Your task to perform on an android device: change the clock display to show seconds Image 0: 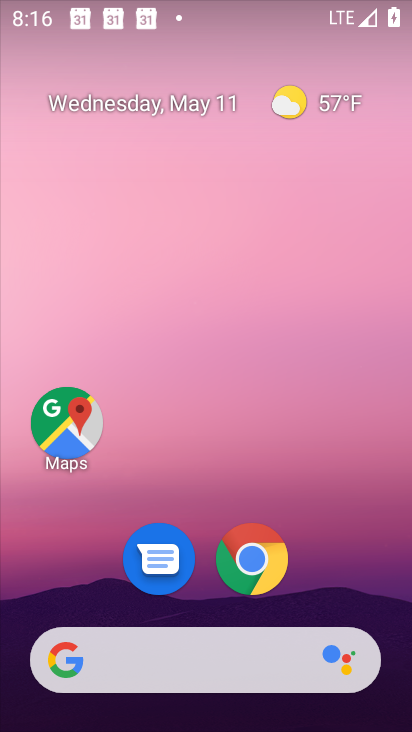
Step 0: drag from (293, 419) to (345, 8)
Your task to perform on an android device: change the clock display to show seconds Image 1: 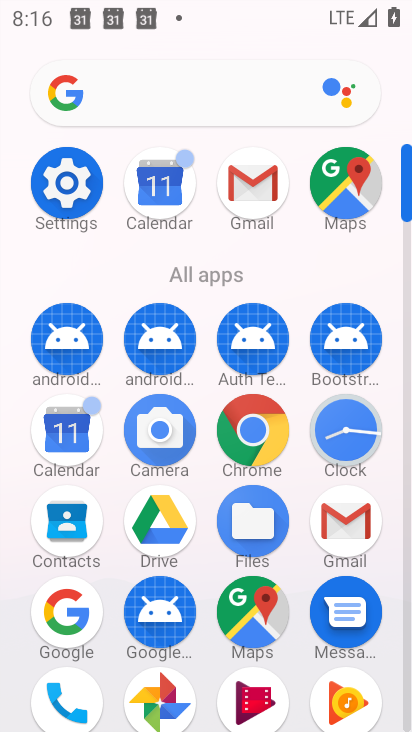
Step 1: click (327, 422)
Your task to perform on an android device: change the clock display to show seconds Image 2: 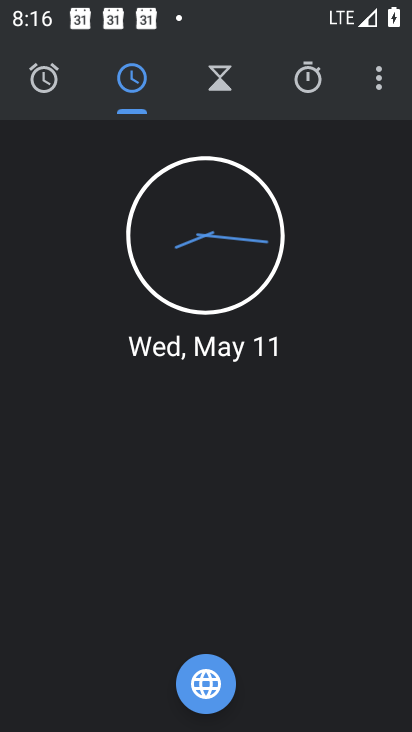
Step 2: click (373, 95)
Your task to perform on an android device: change the clock display to show seconds Image 3: 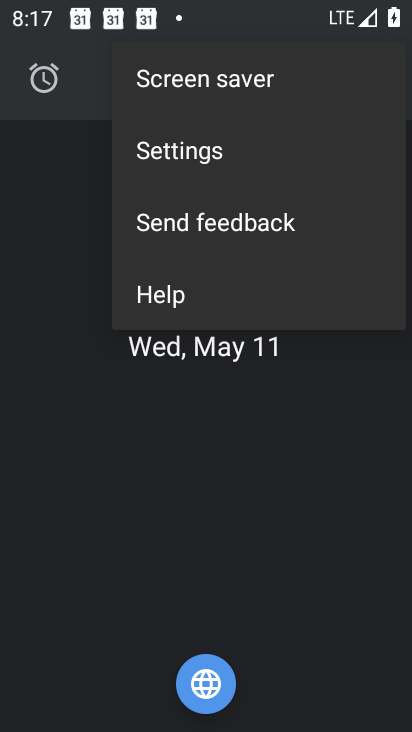
Step 3: click (358, 130)
Your task to perform on an android device: change the clock display to show seconds Image 4: 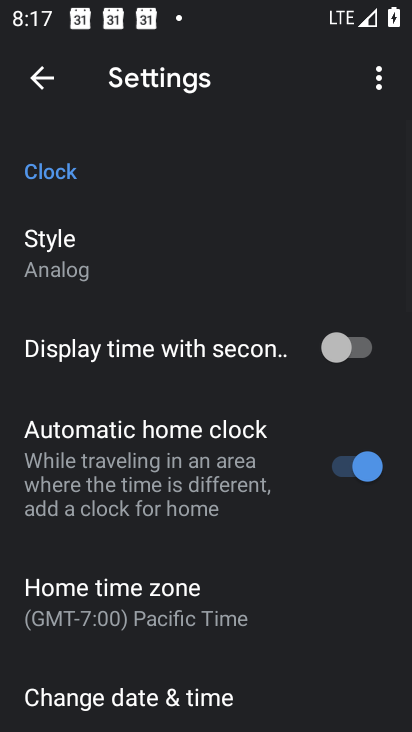
Step 4: click (296, 346)
Your task to perform on an android device: change the clock display to show seconds Image 5: 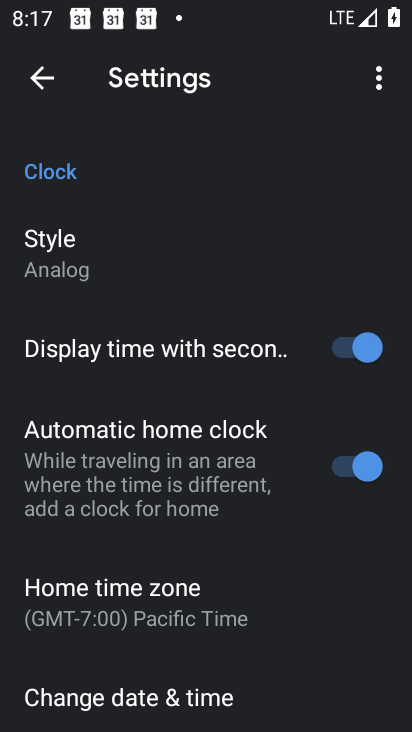
Step 5: task complete